Your task to perform on an android device: change the upload size in google photos Image 0: 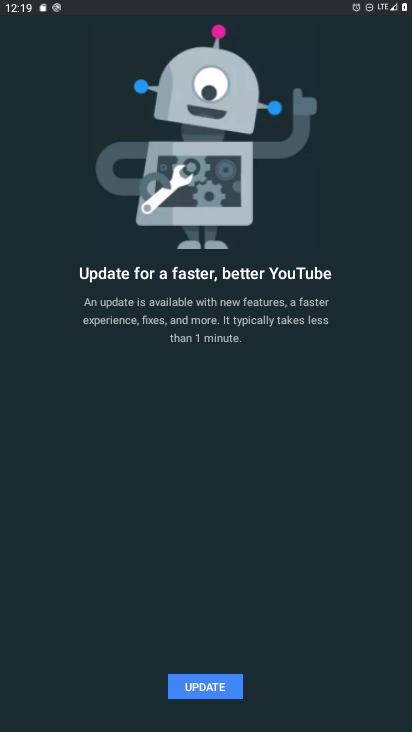
Step 0: press home button
Your task to perform on an android device: change the upload size in google photos Image 1: 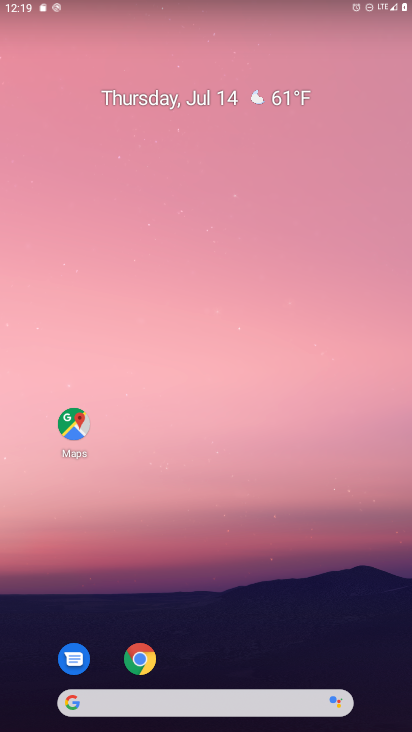
Step 1: drag from (258, 638) to (226, 29)
Your task to perform on an android device: change the upload size in google photos Image 2: 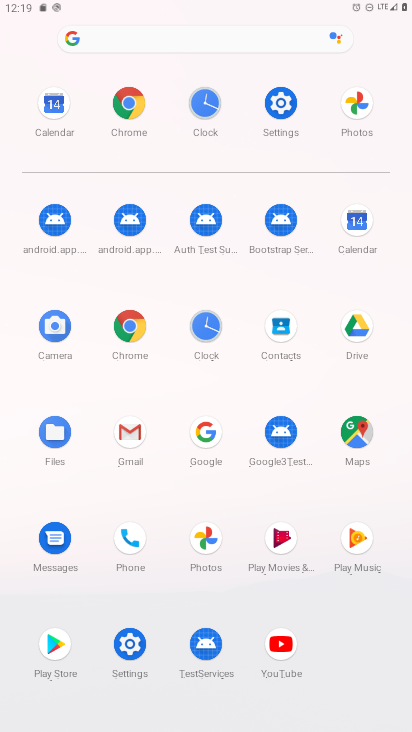
Step 2: click (208, 538)
Your task to perform on an android device: change the upload size in google photos Image 3: 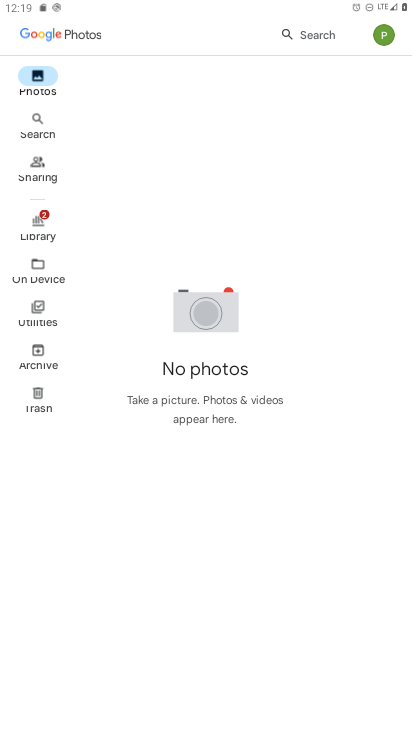
Step 3: click (382, 36)
Your task to perform on an android device: change the upload size in google photos Image 4: 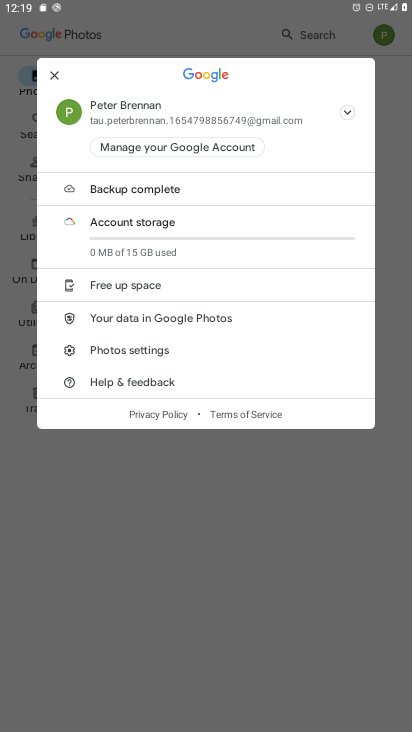
Step 4: click (116, 349)
Your task to perform on an android device: change the upload size in google photos Image 5: 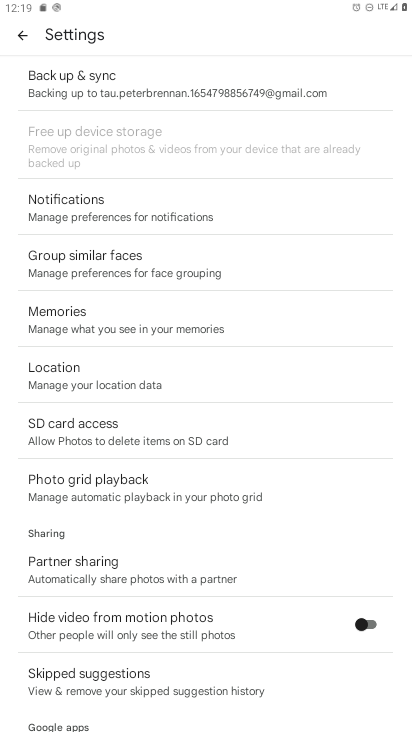
Step 5: click (75, 77)
Your task to perform on an android device: change the upload size in google photos Image 6: 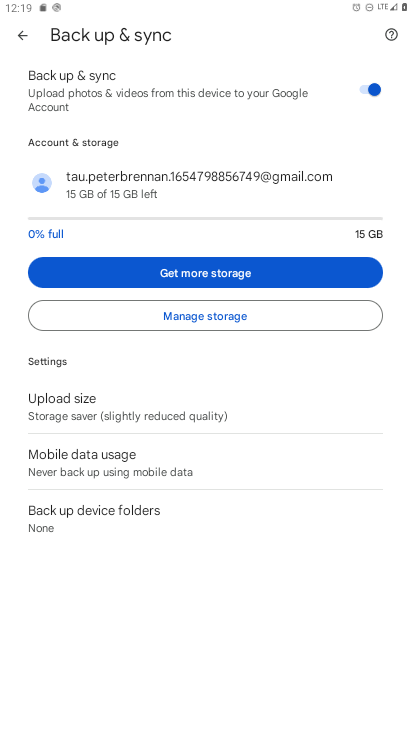
Step 6: click (91, 408)
Your task to perform on an android device: change the upload size in google photos Image 7: 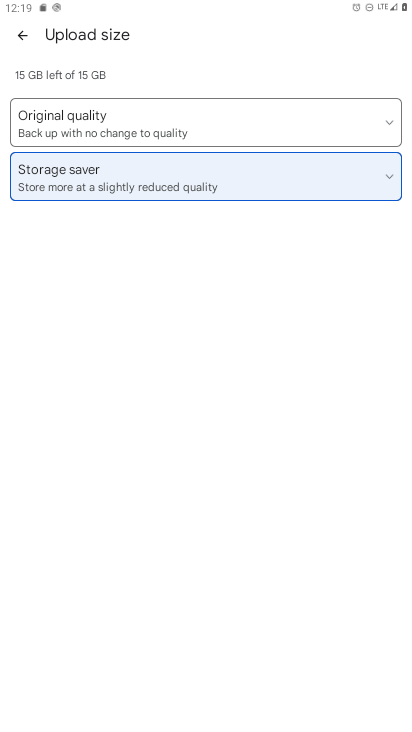
Step 7: click (96, 119)
Your task to perform on an android device: change the upload size in google photos Image 8: 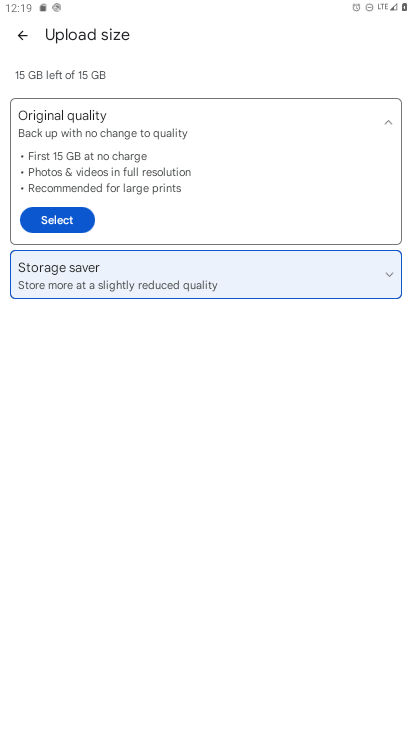
Step 8: click (56, 223)
Your task to perform on an android device: change the upload size in google photos Image 9: 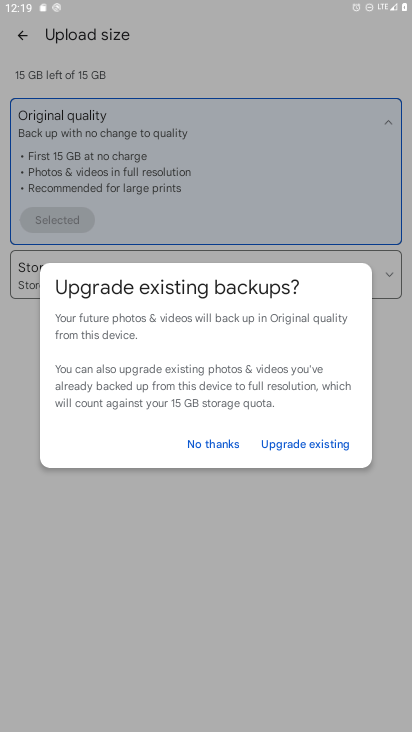
Step 9: click (309, 440)
Your task to perform on an android device: change the upload size in google photos Image 10: 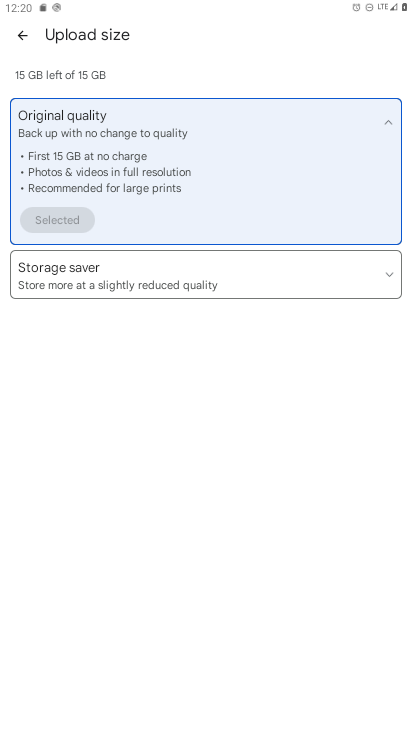
Step 10: task complete